Your task to perform on an android device: Search for Mexican restaurants on Maps Image 0: 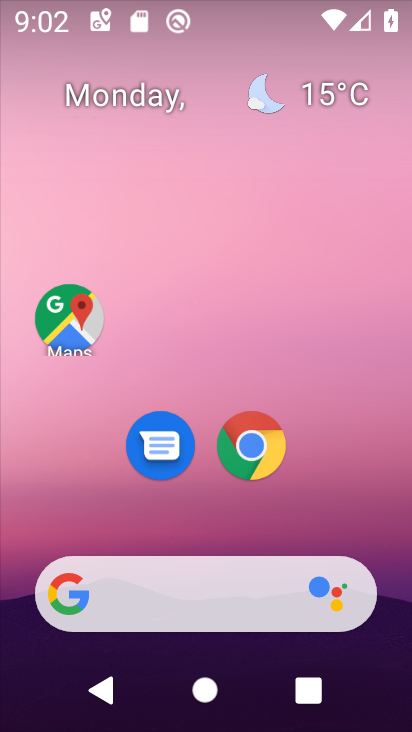
Step 0: click (69, 317)
Your task to perform on an android device: Search for Mexican restaurants on Maps Image 1: 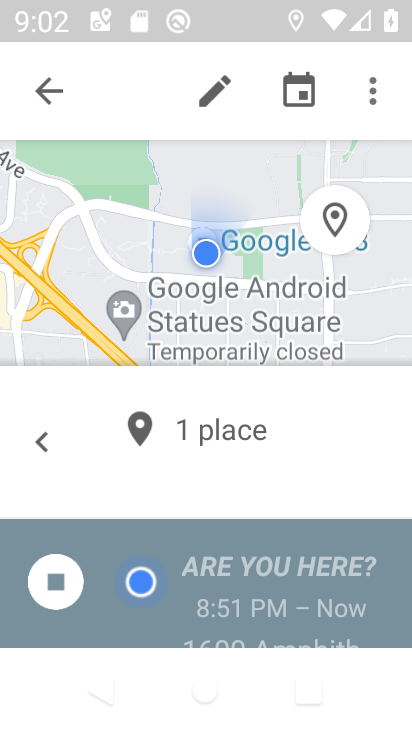
Step 1: click (58, 86)
Your task to perform on an android device: Search for Mexican restaurants on Maps Image 2: 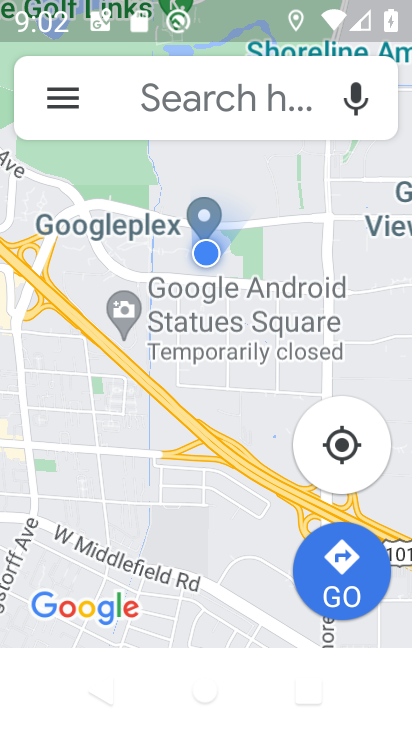
Step 2: click (156, 100)
Your task to perform on an android device: Search for Mexican restaurants on Maps Image 3: 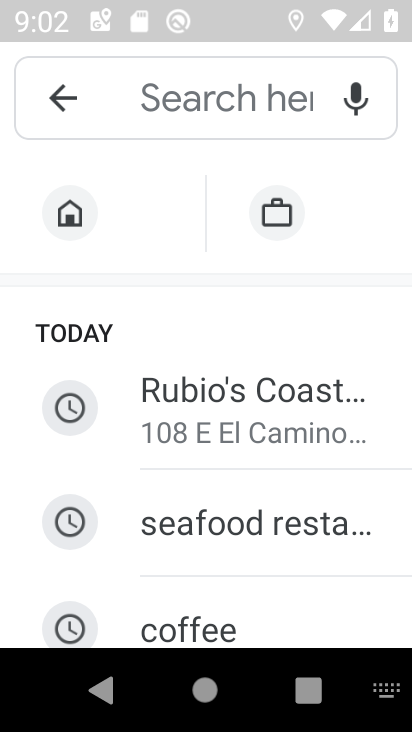
Step 3: drag from (196, 577) to (211, 196)
Your task to perform on an android device: Search for Mexican restaurants on Maps Image 4: 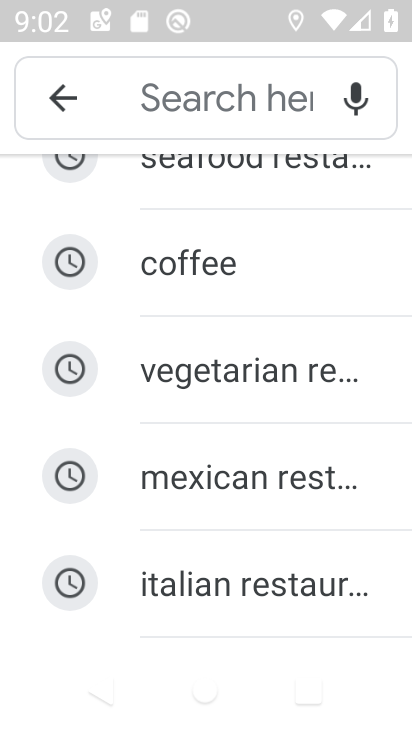
Step 4: click (218, 481)
Your task to perform on an android device: Search for Mexican restaurants on Maps Image 5: 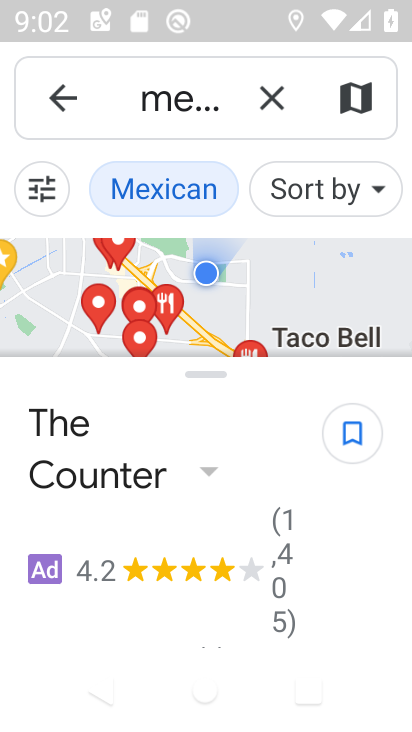
Step 5: task complete